Your task to perform on an android device: Turn off the flashlight Image 0: 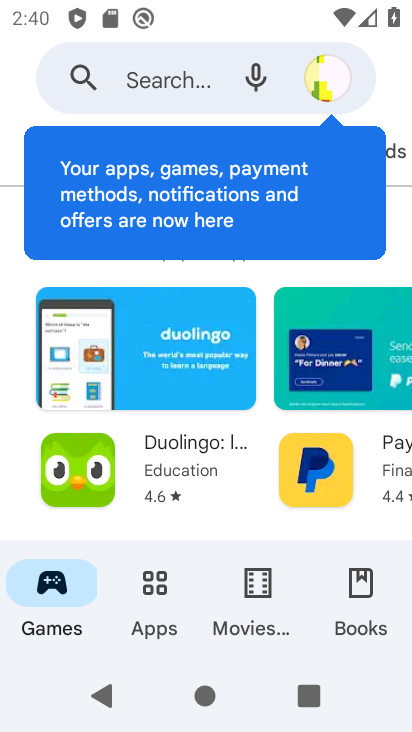
Step 0: press home button
Your task to perform on an android device: Turn off the flashlight Image 1: 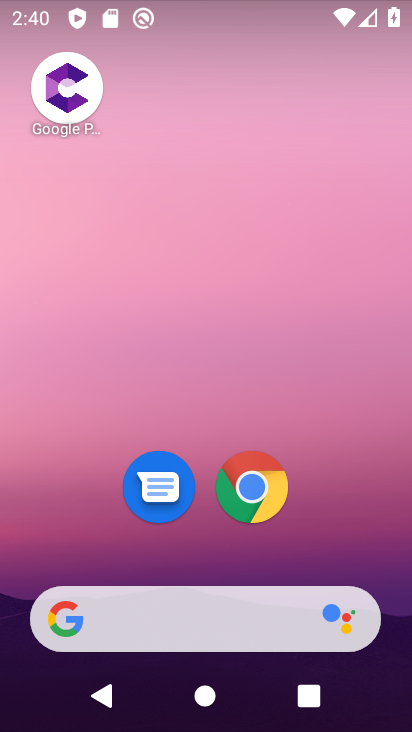
Step 1: drag from (371, 465) to (354, 45)
Your task to perform on an android device: Turn off the flashlight Image 2: 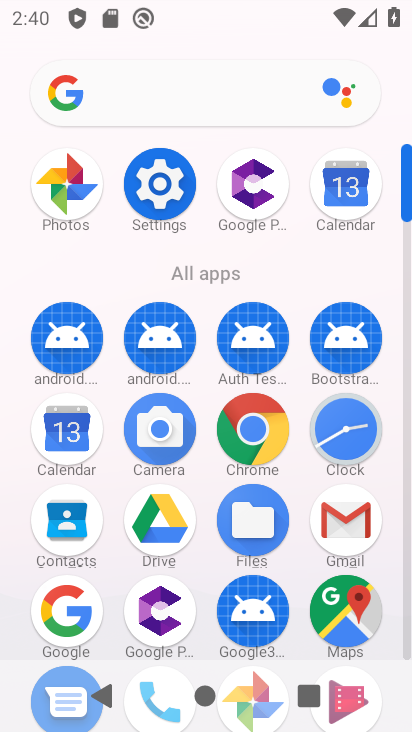
Step 2: click (176, 191)
Your task to perform on an android device: Turn off the flashlight Image 3: 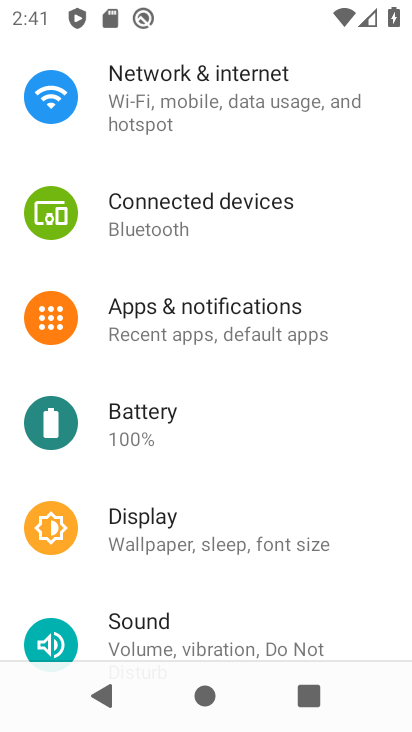
Step 3: task complete